Your task to perform on an android device: find snoozed emails in the gmail app Image 0: 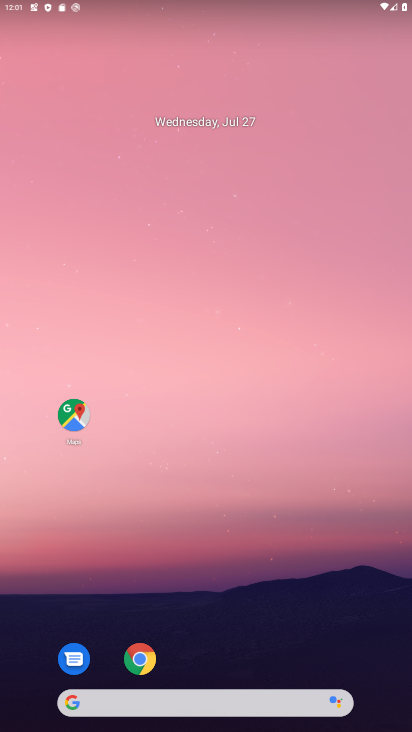
Step 0: drag from (219, 665) to (283, 72)
Your task to perform on an android device: find snoozed emails in the gmail app Image 1: 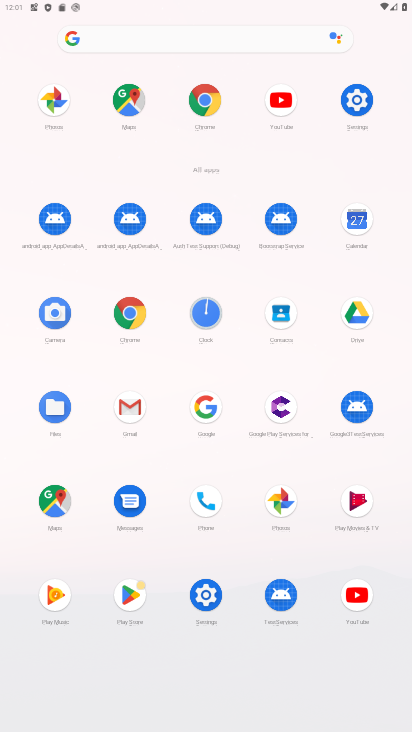
Step 1: click (128, 413)
Your task to perform on an android device: find snoozed emails in the gmail app Image 2: 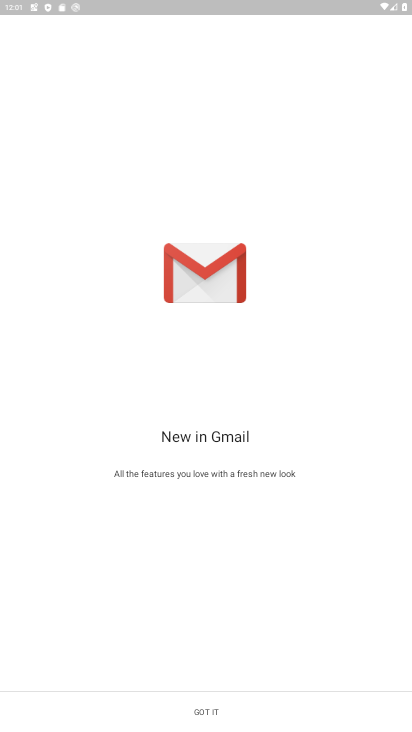
Step 2: click (213, 716)
Your task to perform on an android device: find snoozed emails in the gmail app Image 3: 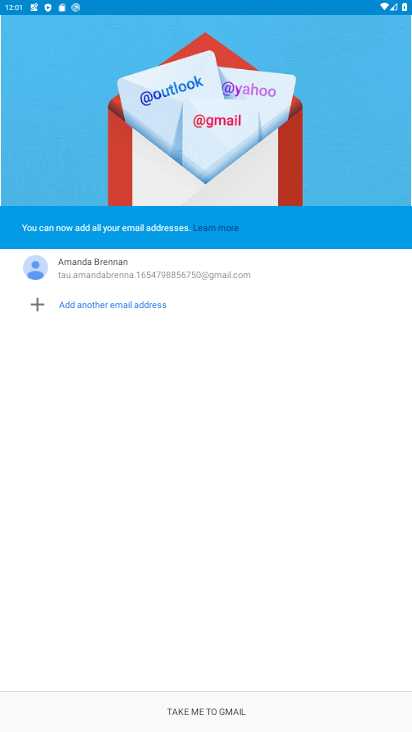
Step 3: click (178, 705)
Your task to perform on an android device: find snoozed emails in the gmail app Image 4: 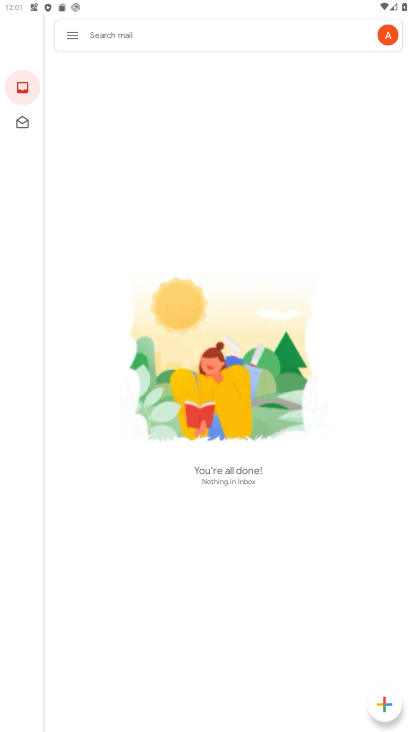
Step 4: click (73, 34)
Your task to perform on an android device: find snoozed emails in the gmail app Image 5: 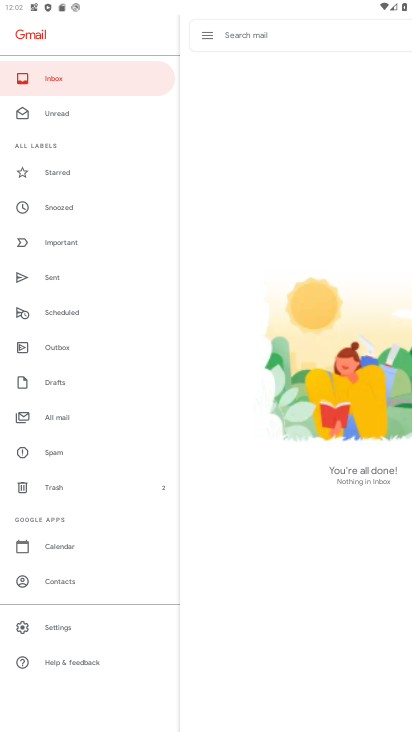
Step 5: click (49, 208)
Your task to perform on an android device: find snoozed emails in the gmail app Image 6: 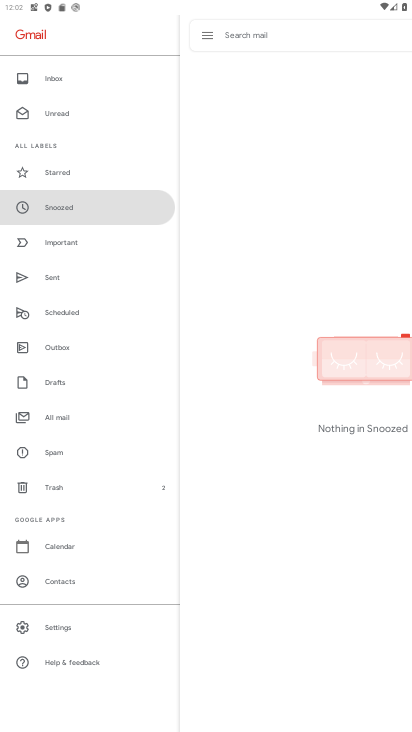
Step 6: task complete